Your task to perform on an android device: How do I get to the nearest AT&T Store? Image 0: 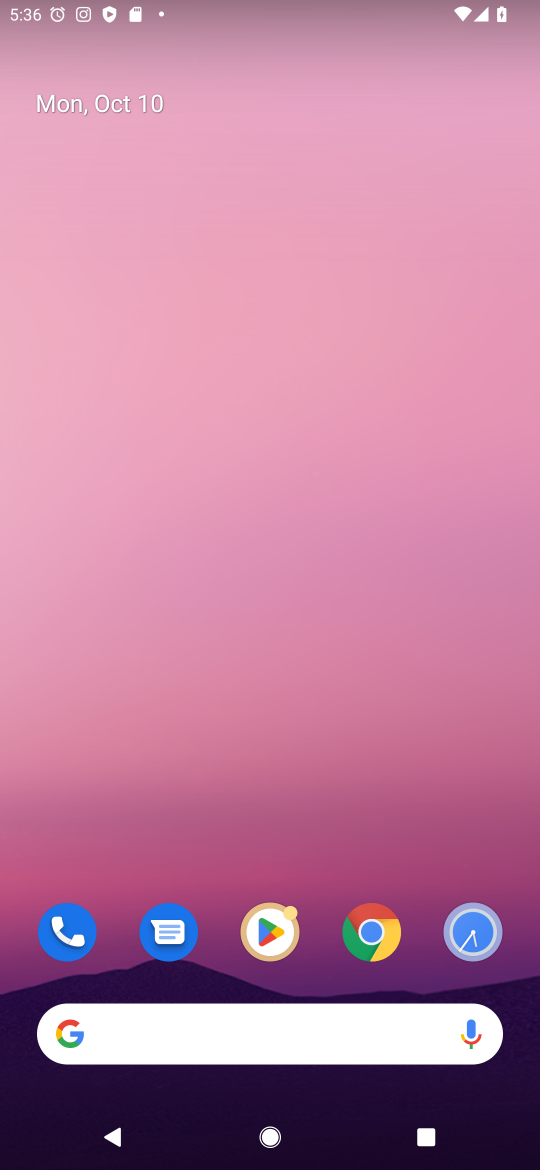
Step 0: press home button
Your task to perform on an android device: How do I get to the nearest AT&T Store? Image 1: 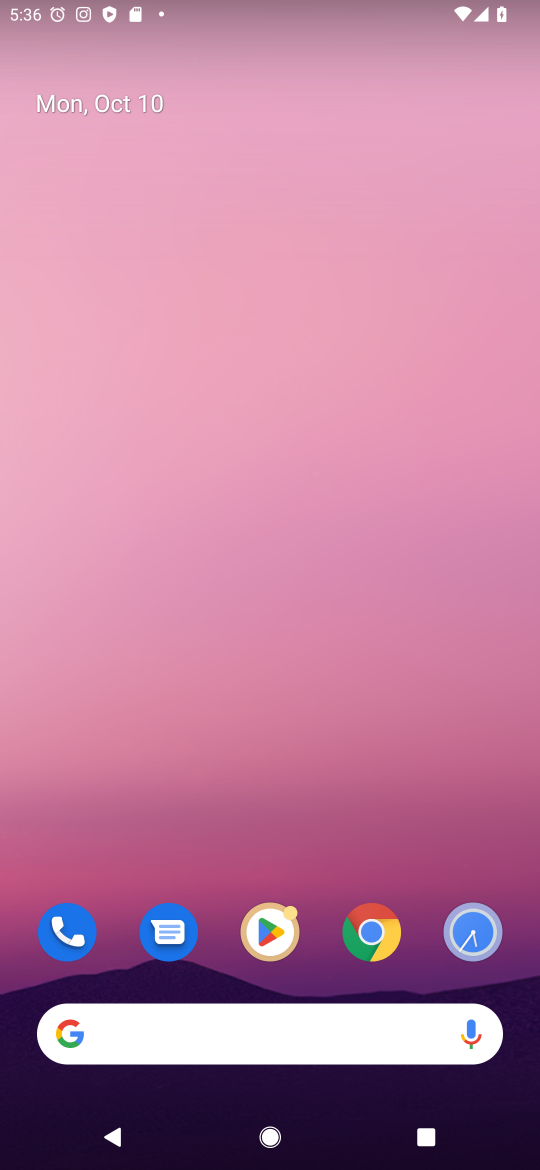
Step 1: click (245, 1033)
Your task to perform on an android device: How do I get to the nearest AT&T Store? Image 2: 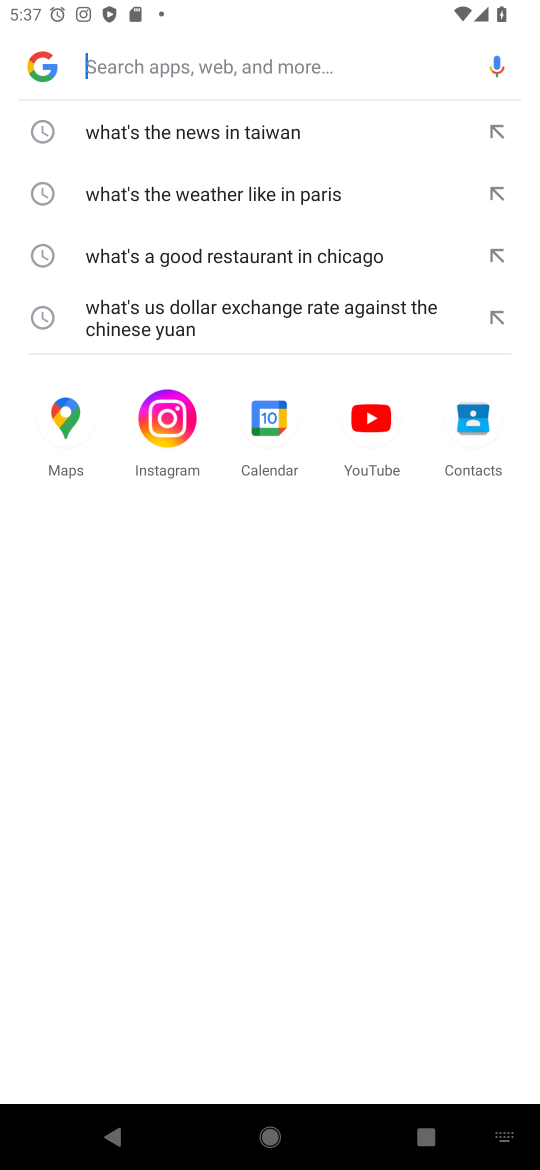
Step 2: type "How do I get to the nearest AT&T Store"
Your task to perform on an android device: How do I get to the nearest AT&T Store? Image 3: 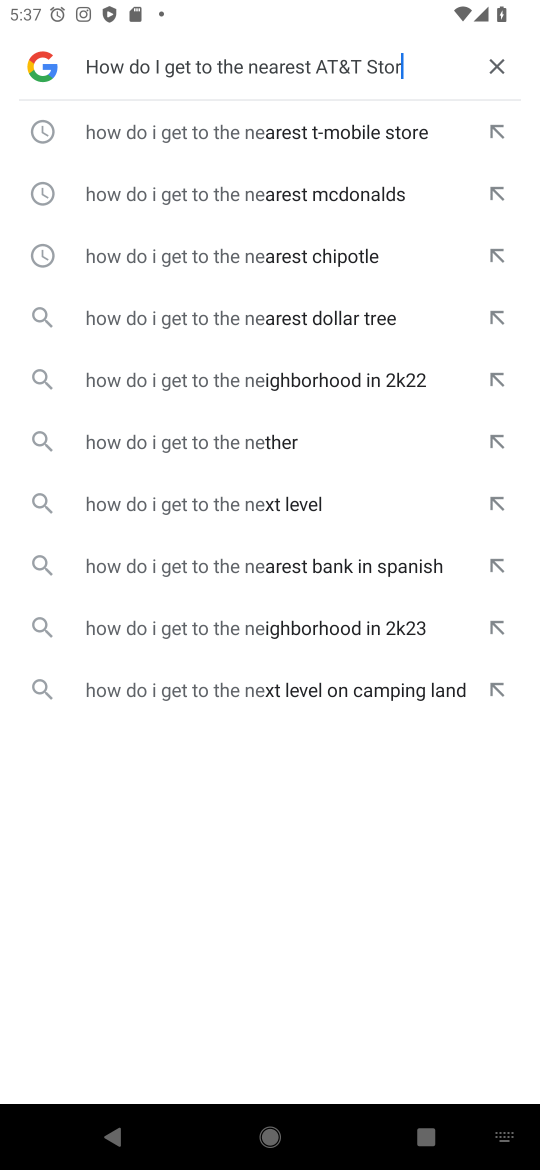
Step 3: press enter
Your task to perform on an android device: How do I get to the nearest AT&T Store? Image 4: 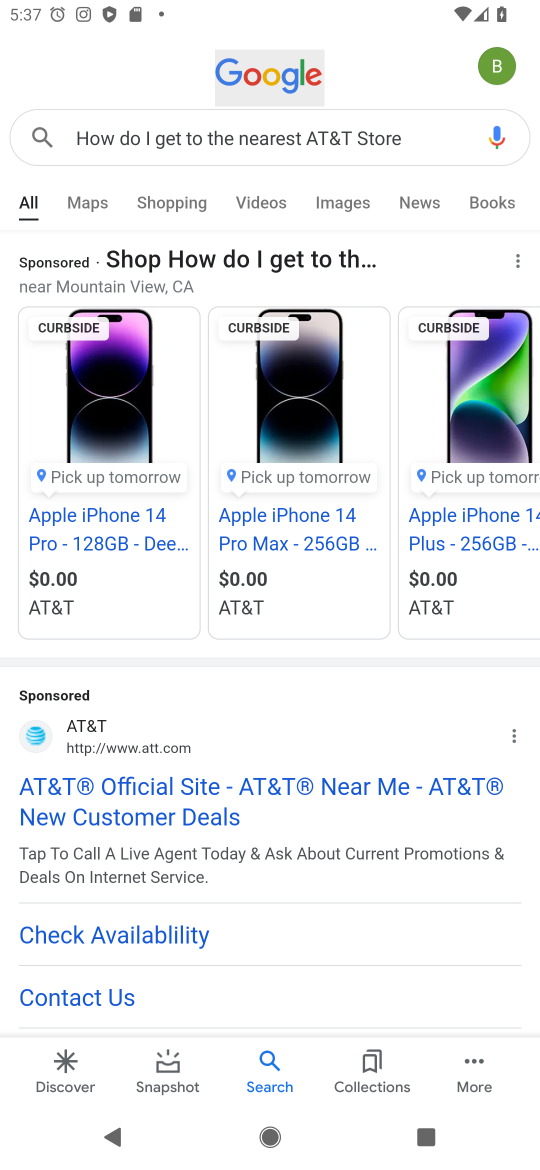
Step 4: click (354, 782)
Your task to perform on an android device: How do I get to the nearest AT&T Store? Image 5: 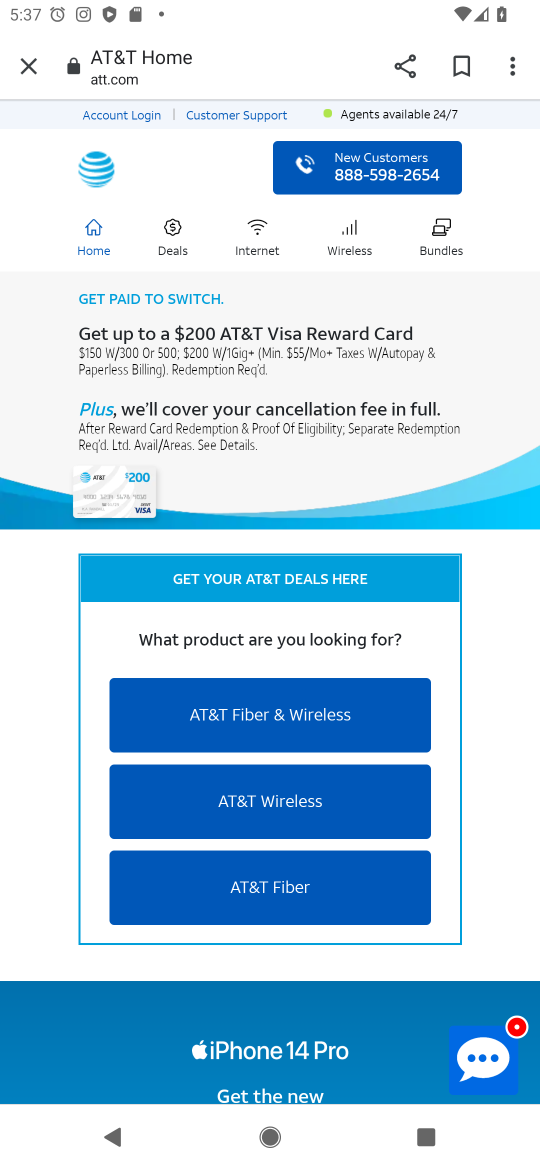
Step 5: task complete